Your task to perform on an android device: Go to privacy settings Image 0: 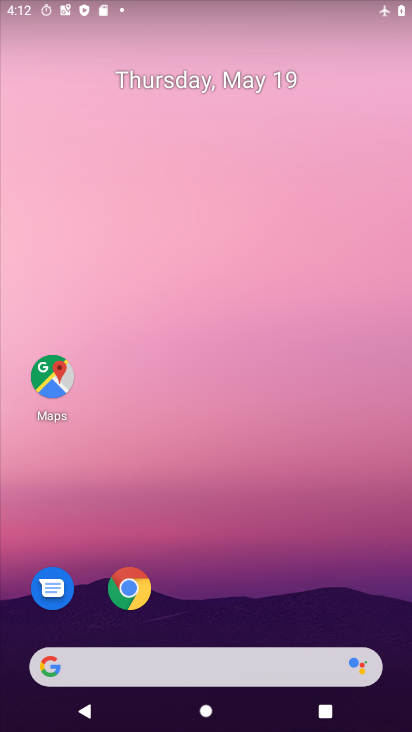
Step 0: drag from (196, 607) to (239, 64)
Your task to perform on an android device: Go to privacy settings Image 1: 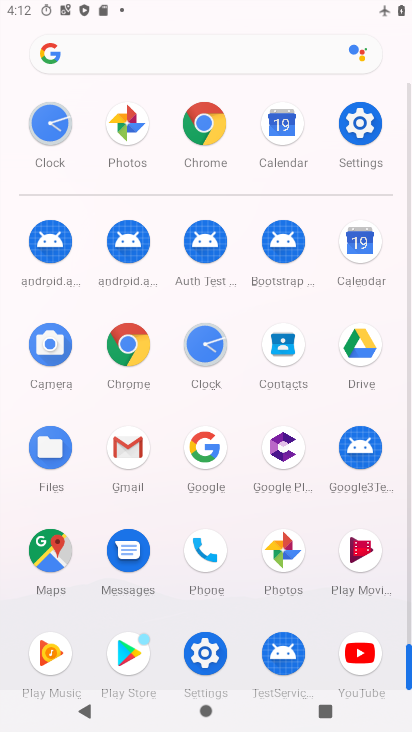
Step 1: click (369, 140)
Your task to perform on an android device: Go to privacy settings Image 2: 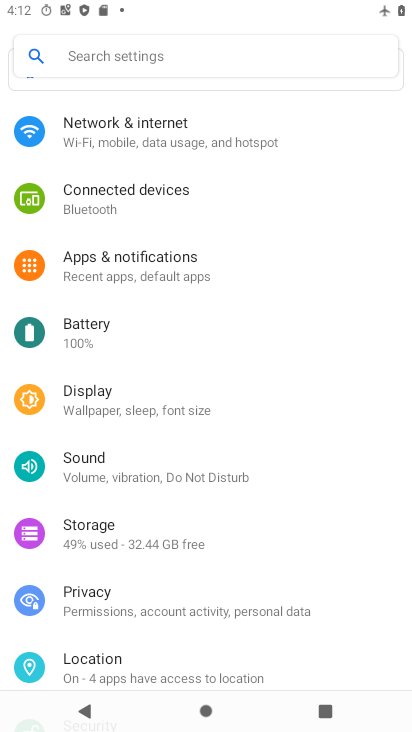
Step 2: click (178, 623)
Your task to perform on an android device: Go to privacy settings Image 3: 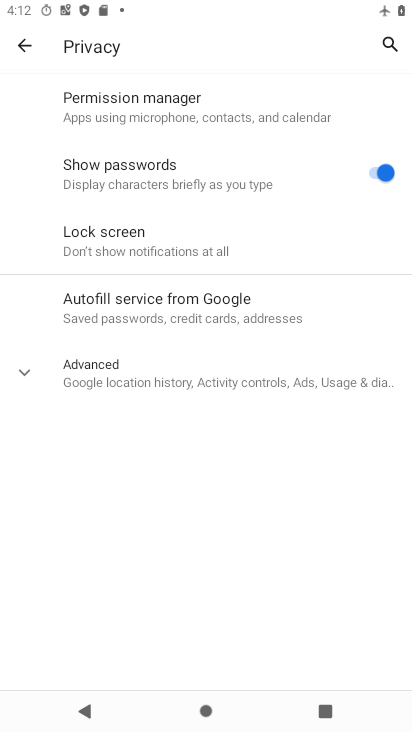
Step 3: task complete